Your task to perform on an android device: turn on wifi Image 0: 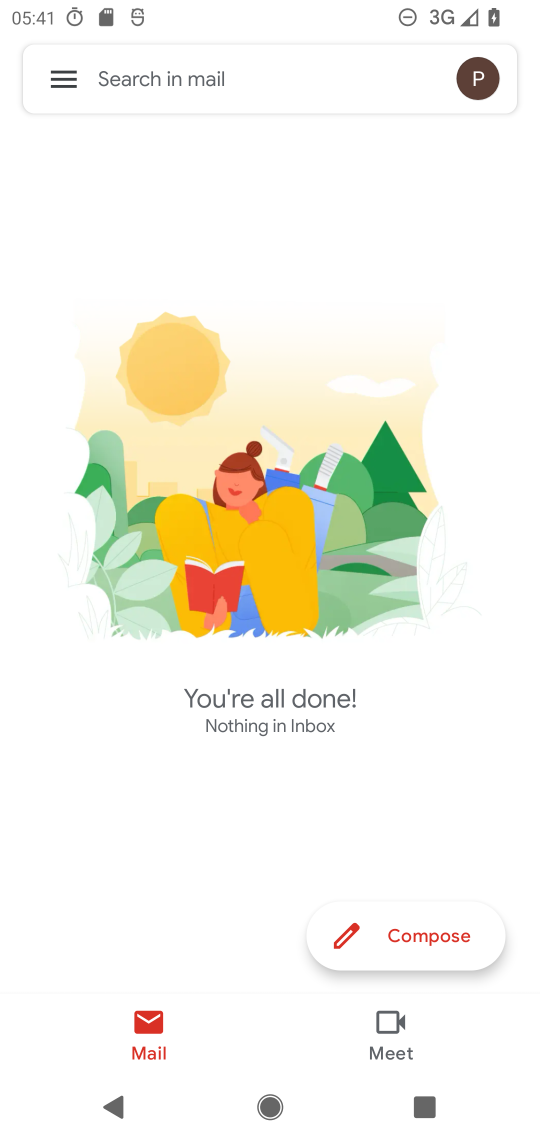
Step 0: press home button
Your task to perform on an android device: turn on wifi Image 1: 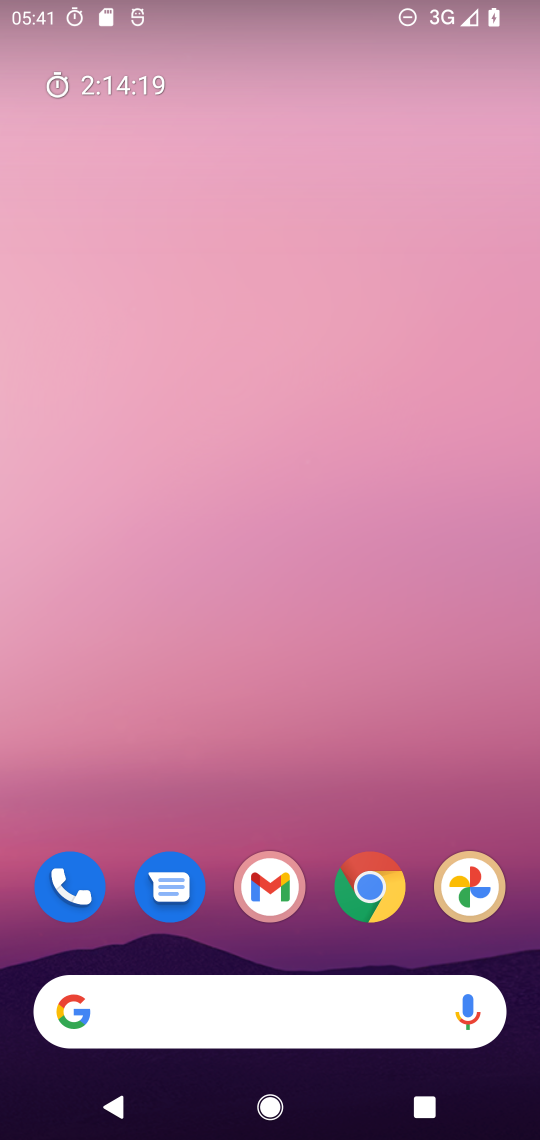
Step 1: drag from (302, 797) to (314, 256)
Your task to perform on an android device: turn on wifi Image 2: 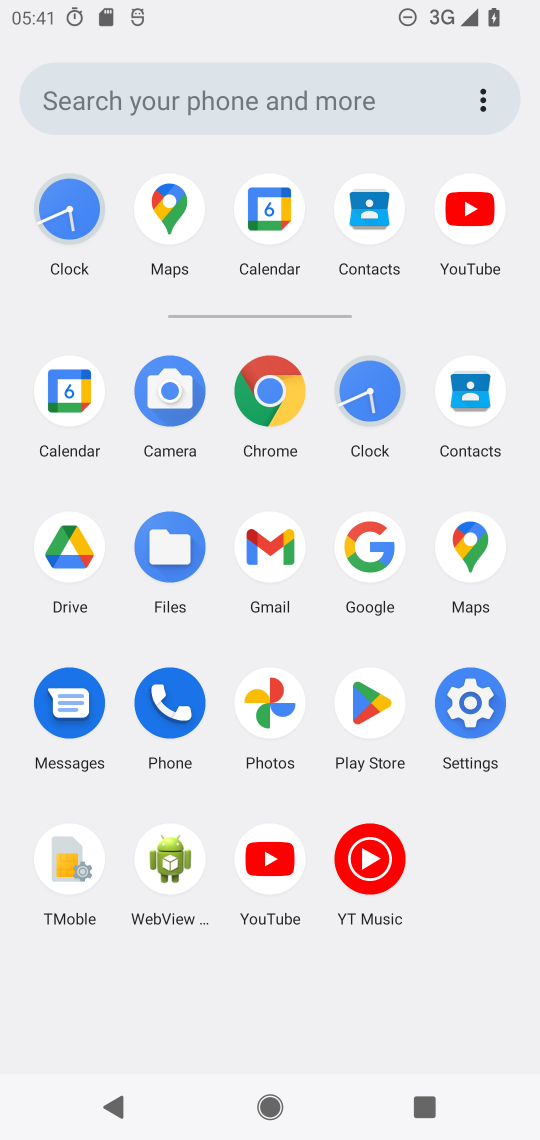
Step 2: click (478, 708)
Your task to perform on an android device: turn on wifi Image 3: 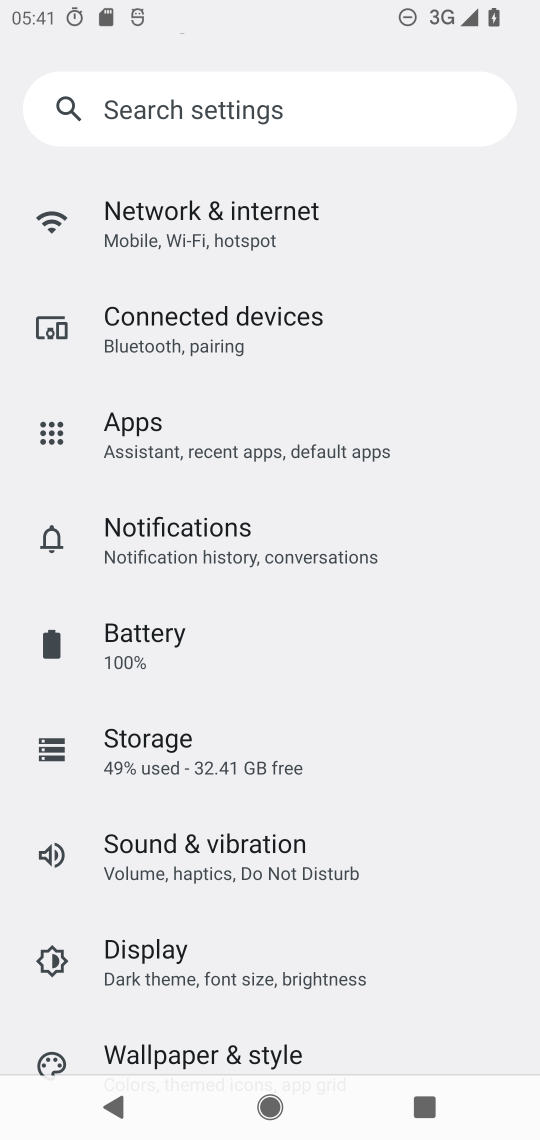
Step 3: click (239, 218)
Your task to perform on an android device: turn on wifi Image 4: 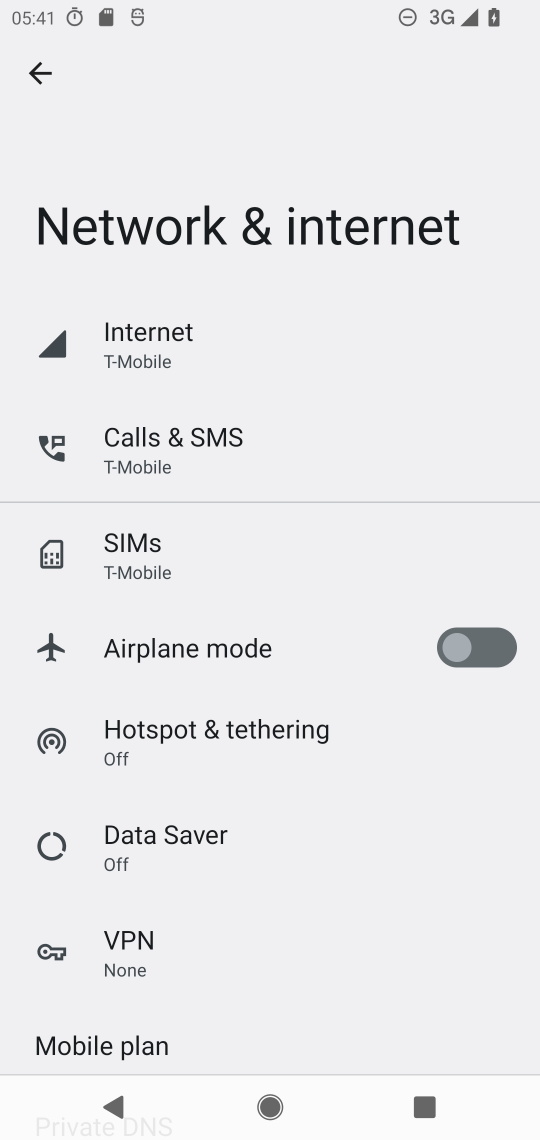
Step 4: click (151, 350)
Your task to perform on an android device: turn on wifi Image 5: 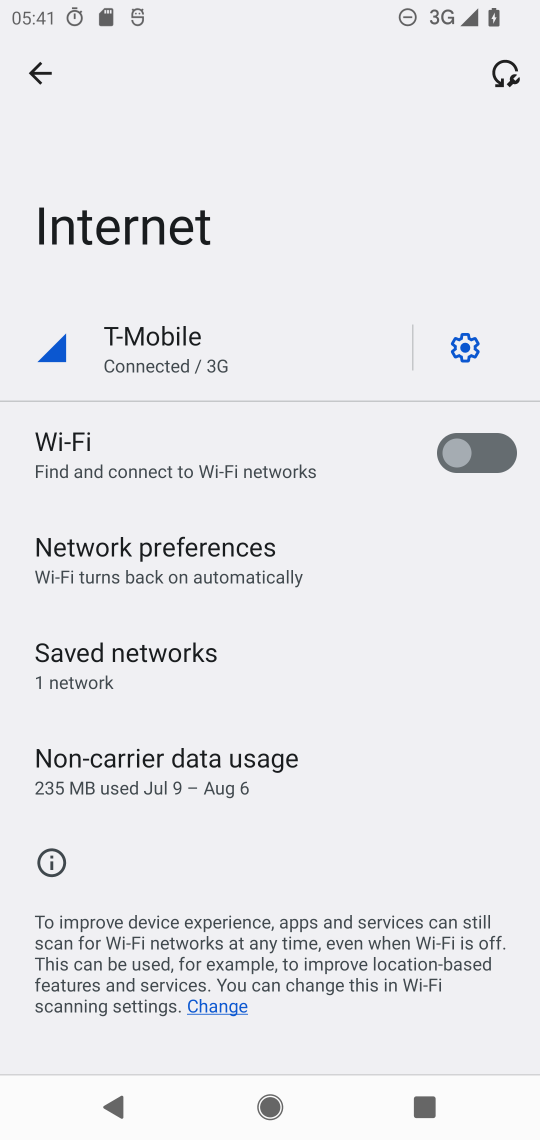
Step 5: click (483, 453)
Your task to perform on an android device: turn on wifi Image 6: 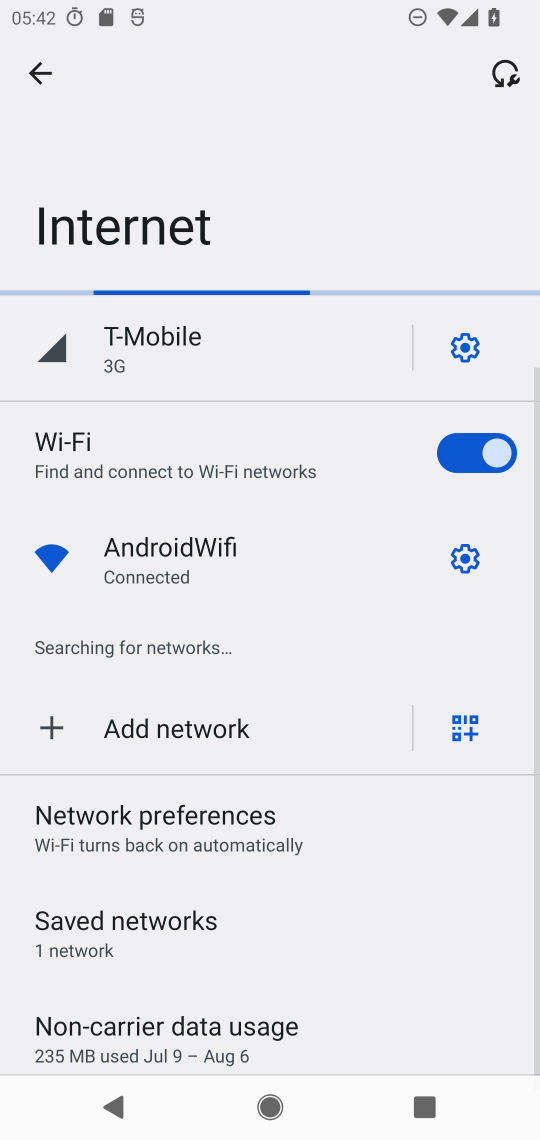
Step 6: task complete